Your task to perform on an android device: create a new album in the google photos Image 0: 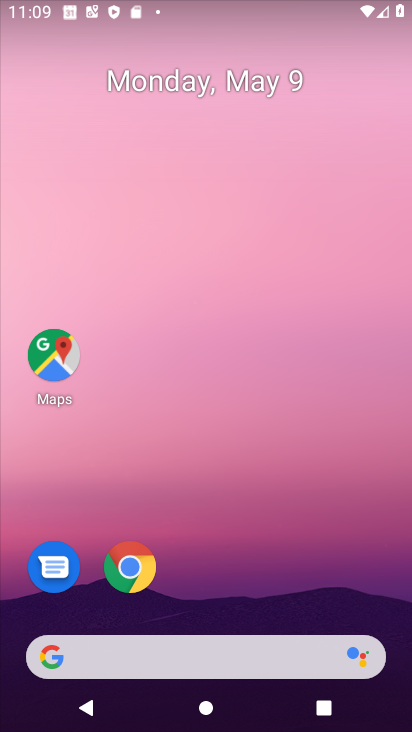
Step 0: drag from (219, 668) to (188, 393)
Your task to perform on an android device: create a new album in the google photos Image 1: 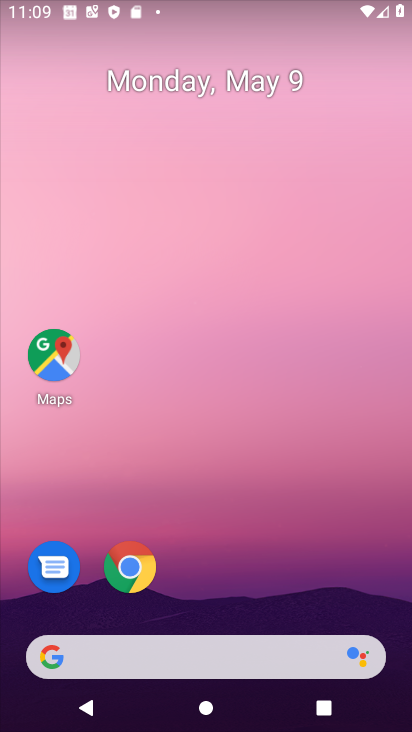
Step 1: drag from (210, 638) to (195, 543)
Your task to perform on an android device: create a new album in the google photos Image 2: 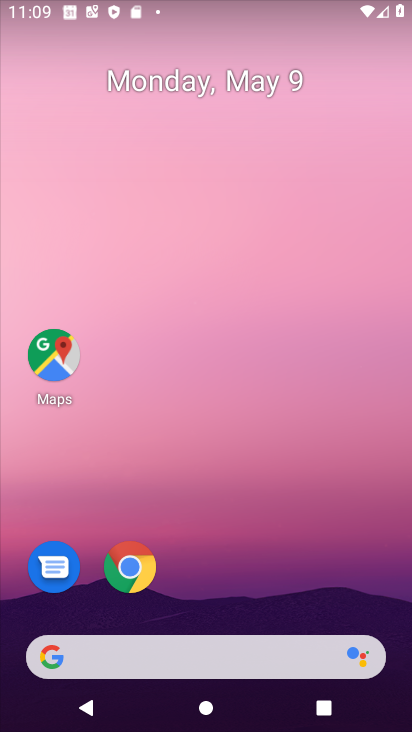
Step 2: drag from (193, 631) to (152, 251)
Your task to perform on an android device: create a new album in the google photos Image 3: 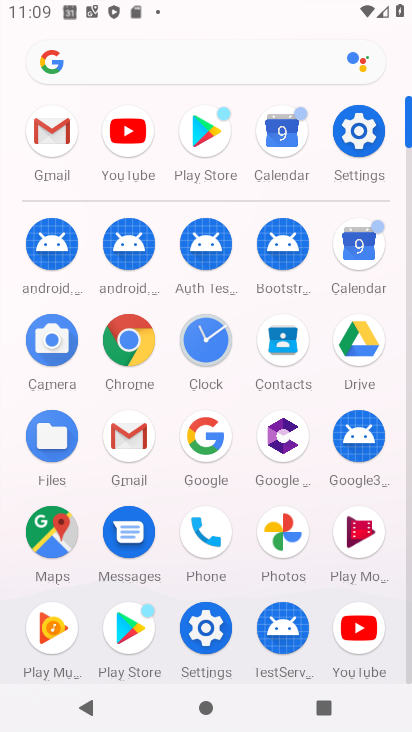
Step 3: click (262, 547)
Your task to perform on an android device: create a new album in the google photos Image 4: 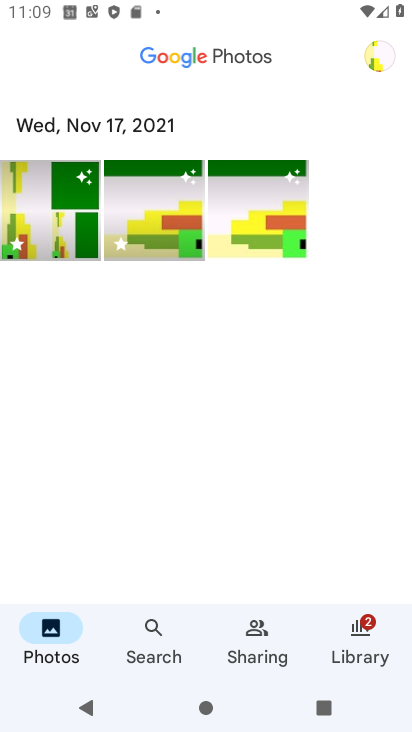
Step 4: click (250, 640)
Your task to perform on an android device: create a new album in the google photos Image 5: 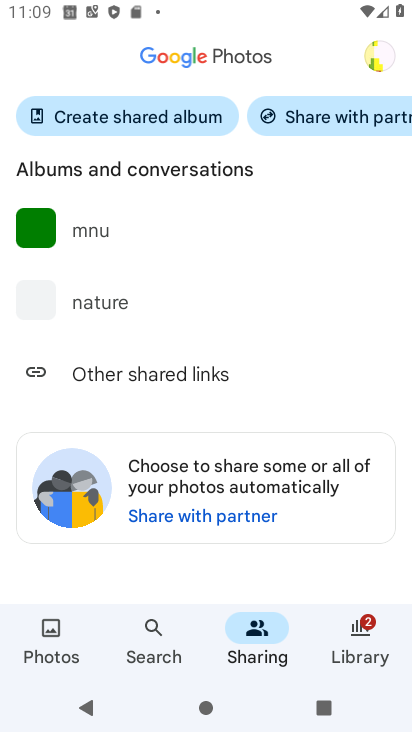
Step 5: click (160, 665)
Your task to perform on an android device: create a new album in the google photos Image 6: 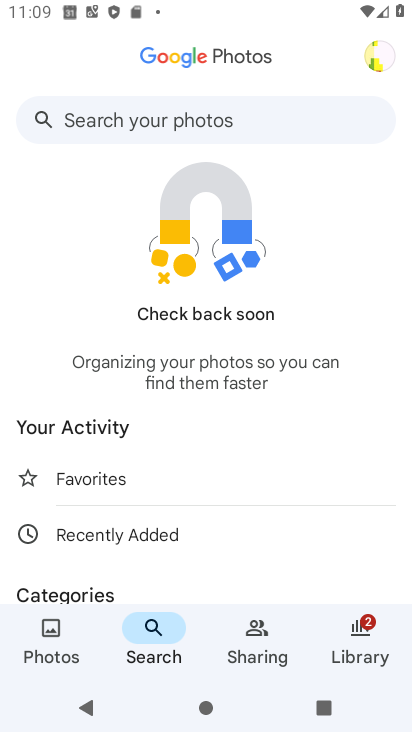
Step 6: click (353, 636)
Your task to perform on an android device: create a new album in the google photos Image 7: 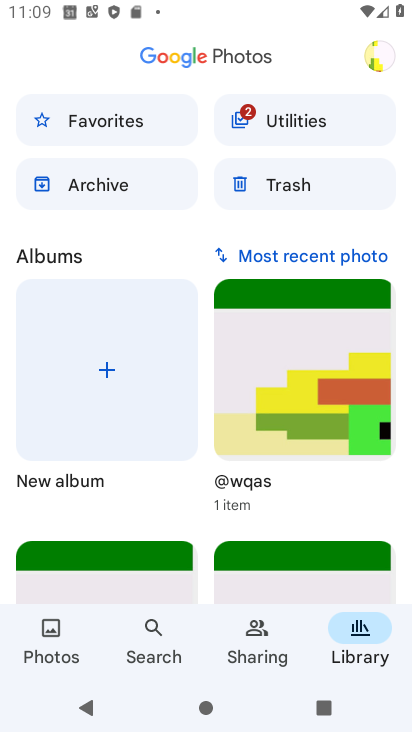
Step 7: click (76, 387)
Your task to perform on an android device: create a new album in the google photos Image 8: 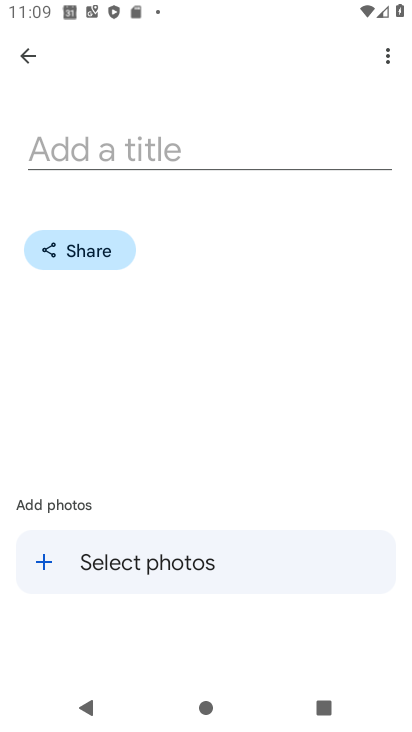
Step 8: click (125, 164)
Your task to perform on an android device: create a new album in the google photos Image 9: 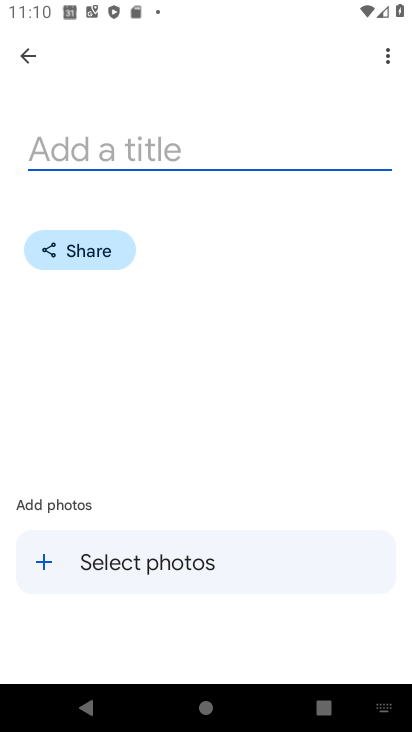
Step 9: type "cbfbf"
Your task to perform on an android device: create a new album in the google photos Image 10: 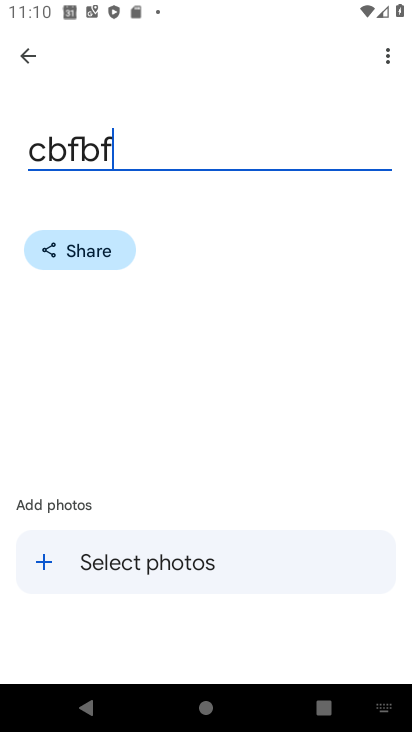
Step 10: click (161, 578)
Your task to perform on an android device: create a new album in the google photos Image 11: 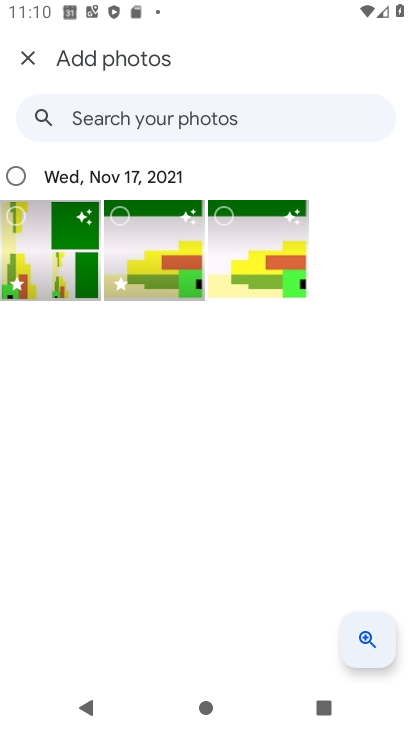
Step 11: click (20, 176)
Your task to perform on an android device: create a new album in the google photos Image 12: 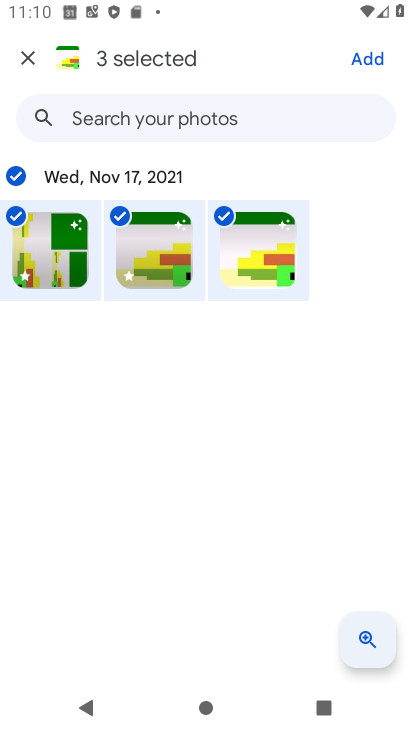
Step 12: click (373, 71)
Your task to perform on an android device: create a new album in the google photos Image 13: 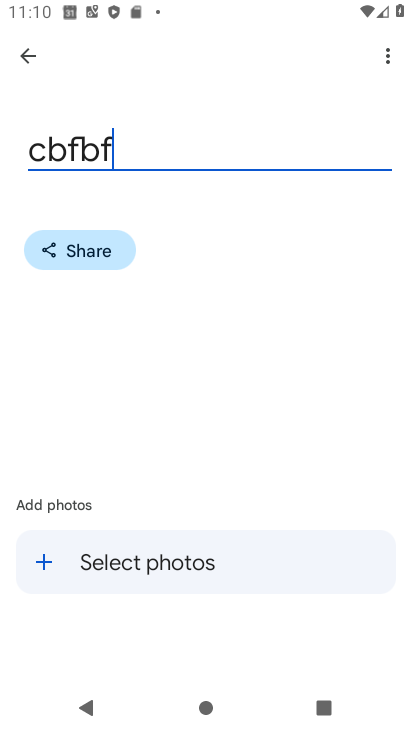
Step 13: click (373, 71)
Your task to perform on an android device: create a new album in the google photos Image 14: 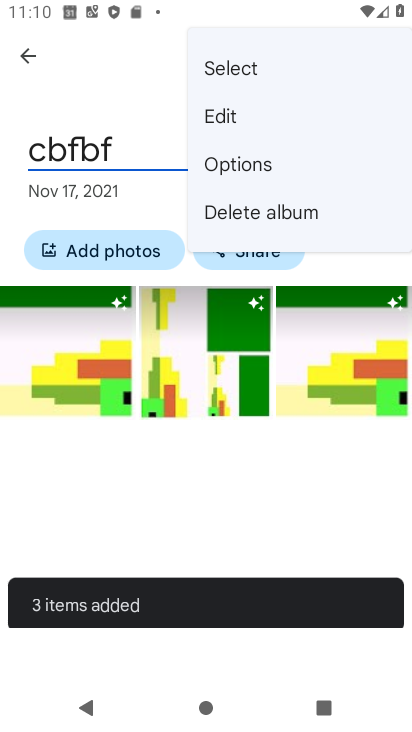
Step 14: click (212, 513)
Your task to perform on an android device: create a new album in the google photos Image 15: 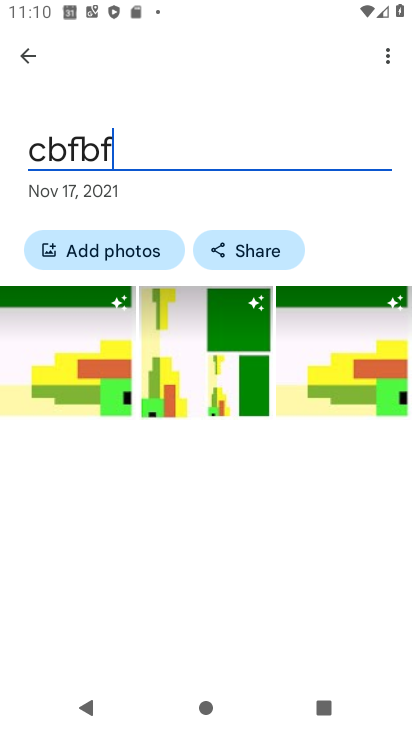
Step 15: task complete